Your task to perform on an android device: add a label to a message in the gmail app Image 0: 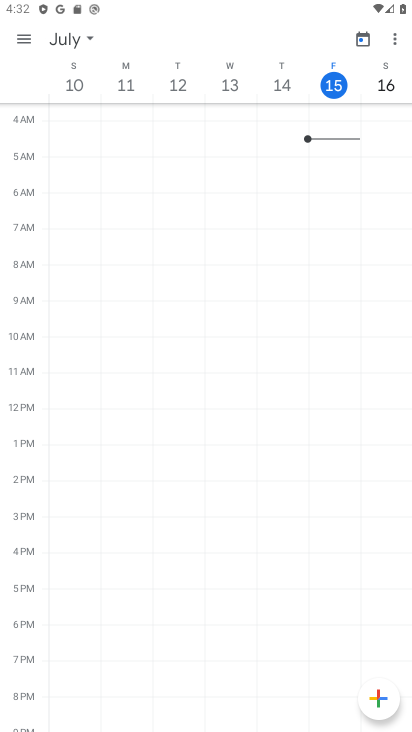
Step 0: press back button
Your task to perform on an android device: add a label to a message in the gmail app Image 1: 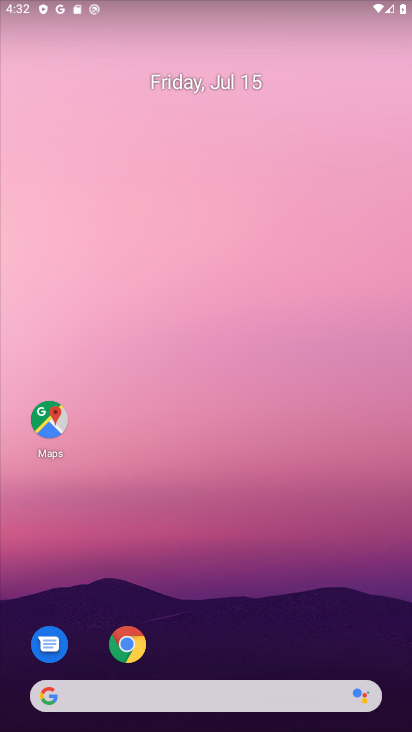
Step 1: drag from (228, 579) to (88, 202)
Your task to perform on an android device: add a label to a message in the gmail app Image 2: 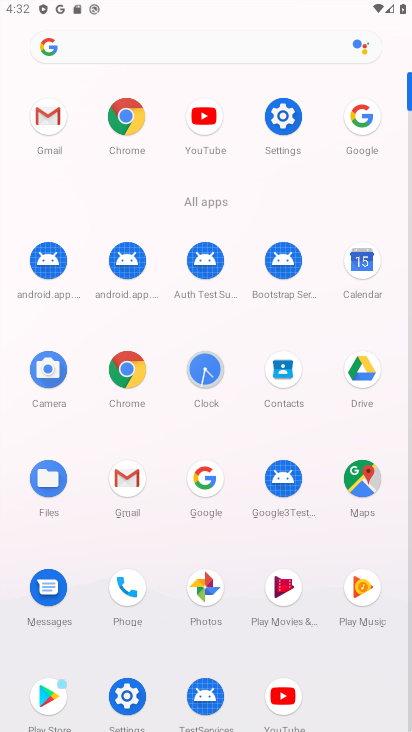
Step 2: click (134, 469)
Your task to perform on an android device: add a label to a message in the gmail app Image 3: 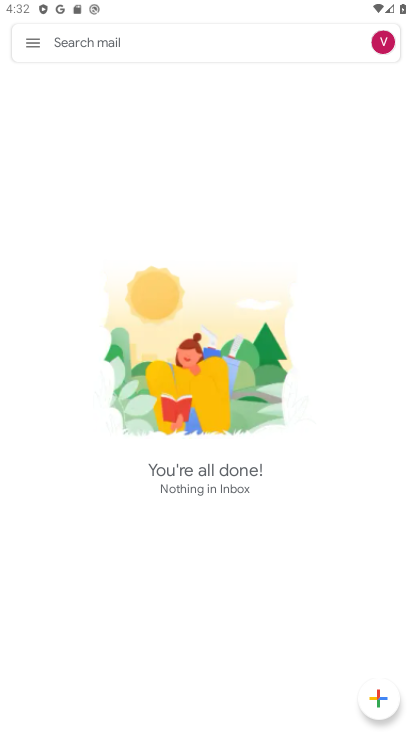
Step 3: task complete